Your task to perform on an android device: add a label to a message in the gmail app Image 0: 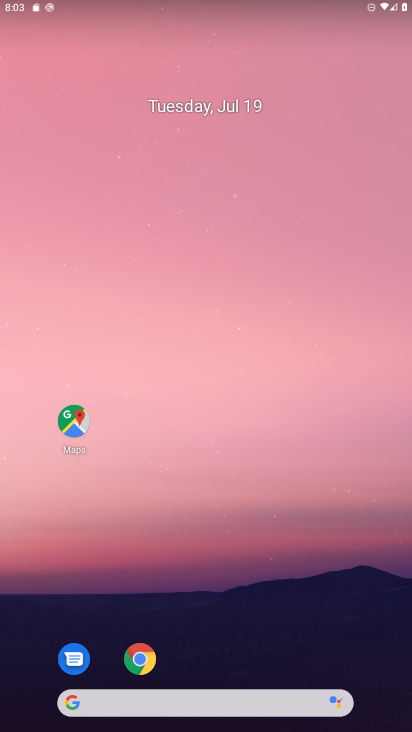
Step 0: drag from (270, 618) to (284, 98)
Your task to perform on an android device: add a label to a message in the gmail app Image 1: 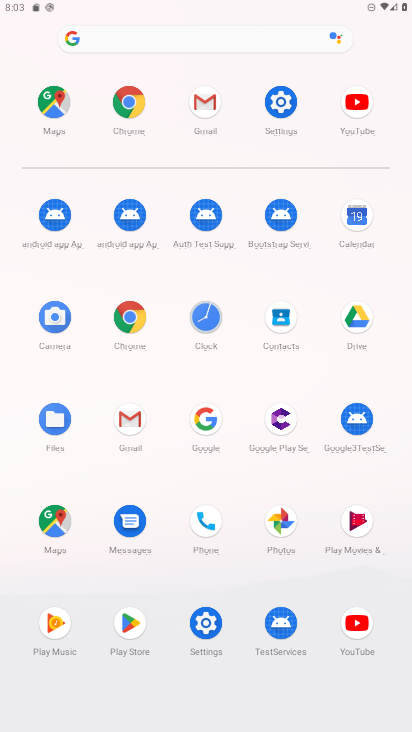
Step 1: click (209, 100)
Your task to perform on an android device: add a label to a message in the gmail app Image 2: 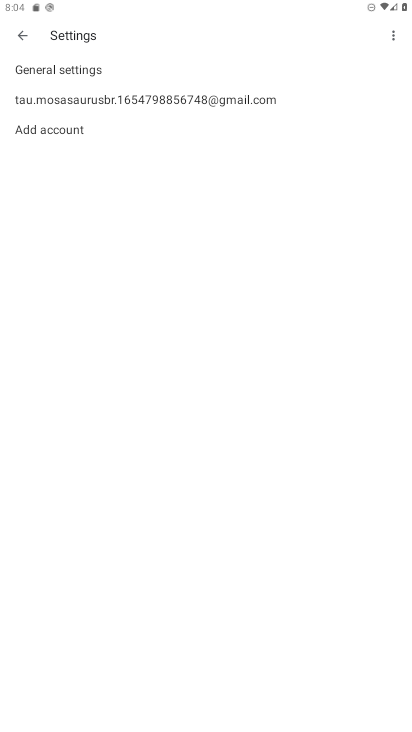
Step 2: click (21, 32)
Your task to perform on an android device: add a label to a message in the gmail app Image 3: 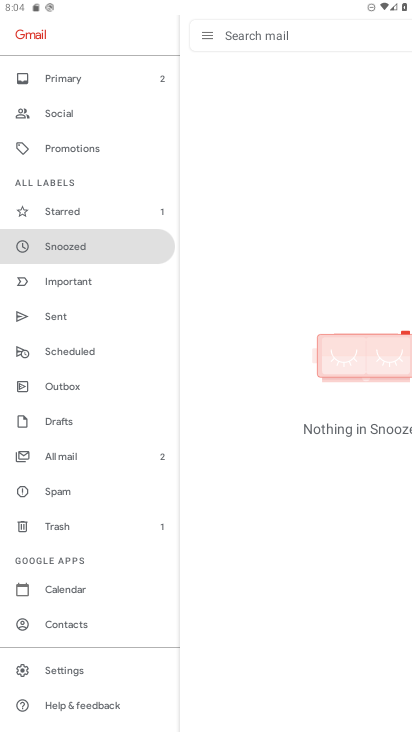
Step 3: click (75, 457)
Your task to perform on an android device: add a label to a message in the gmail app Image 4: 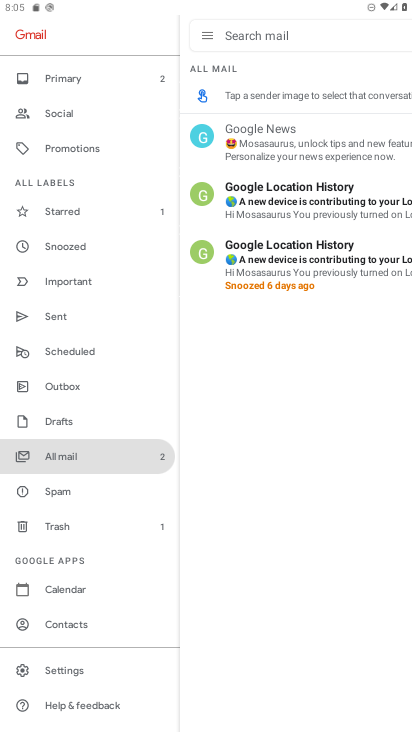
Step 4: click (315, 133)
Your task to perform on an android device: add a label to a message in the gmail app Image 5: 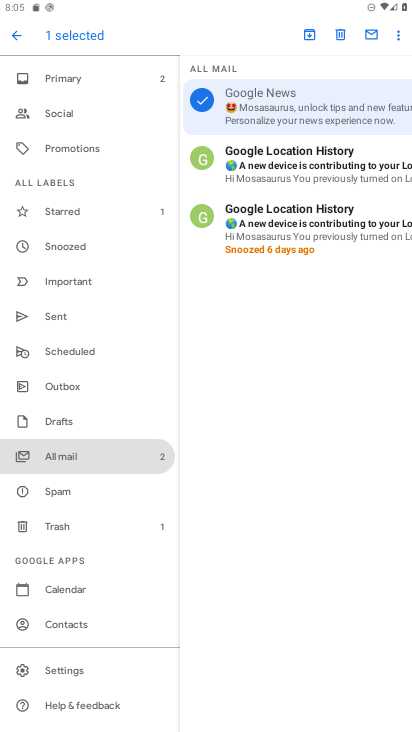
Step 5: click (396, 26)
Your task to perform on an android device: add a label to a message in the gmail app Image 6: 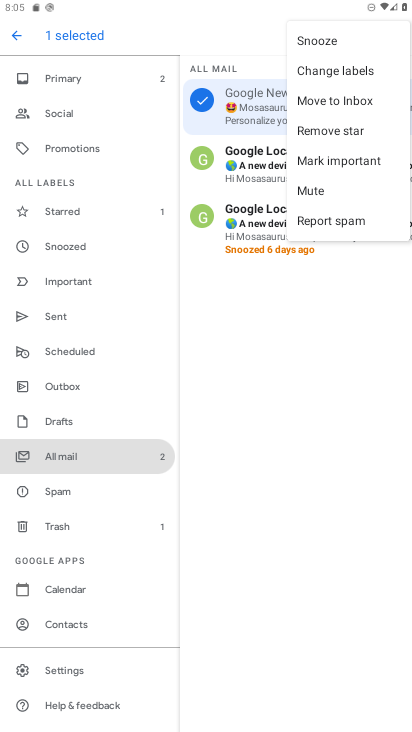
Step 6: click (349, 74)
Your task to perform on an android device: add a label to a message in the gmail app Image 7: 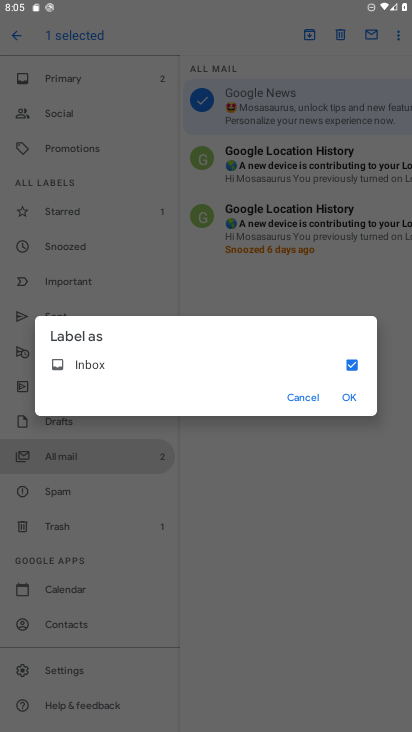
Step 7: click (41, 360)
Your task to perform on an android device: add a label to a message in the gmail app Image 8: 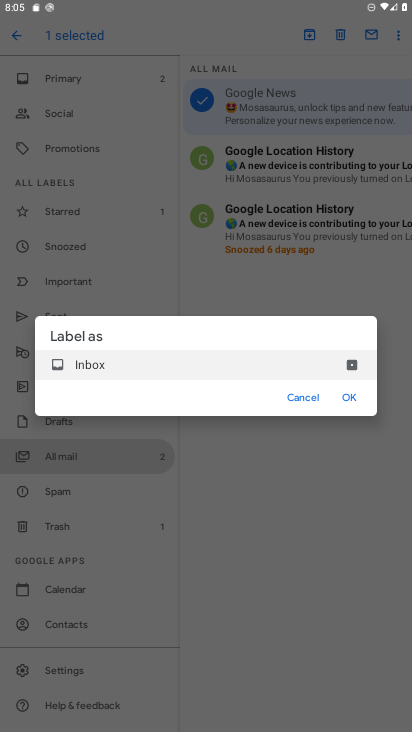
Step 8: click (56, 362)
Your task to perform on an android device: add a label to a message in the gmail app Image 9: 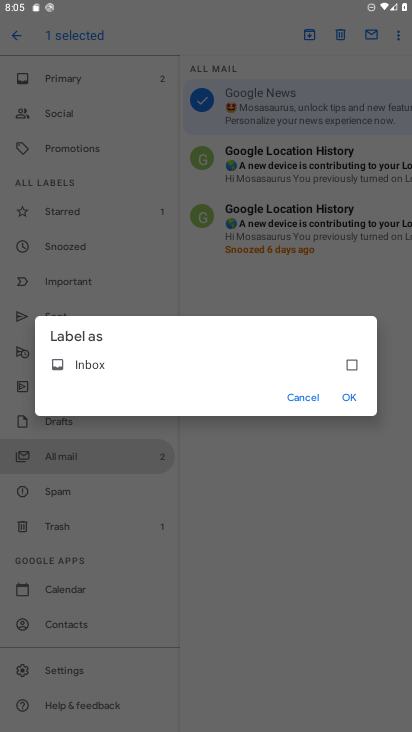
Step 9: click (60, 362)
Your task to perform on an android device: add a label to a message in the gmail app Image 10: 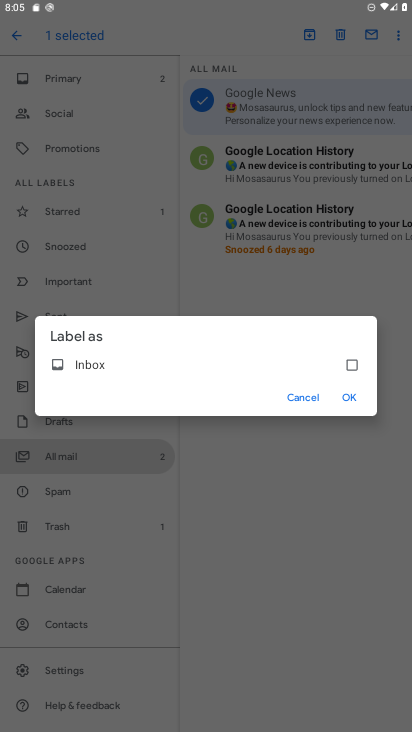
Step 10: click (352, 363)
Your task to perform on an android device: add a label to a message in the gmail app Image 11: 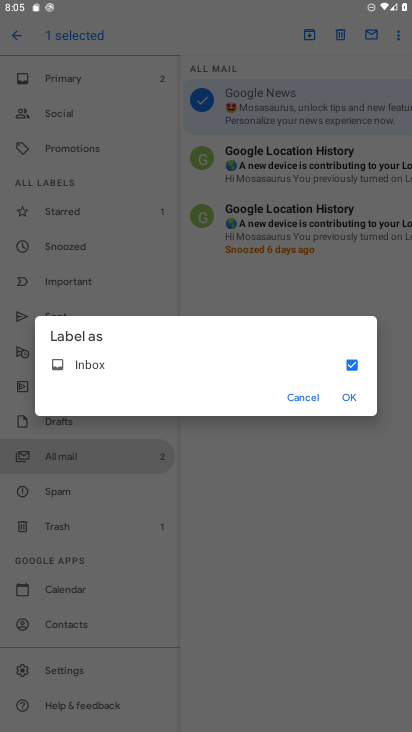
Step 11: click (354, 405)
Your task to perform on an android device: add a label to a message in the gmail app Image 12: 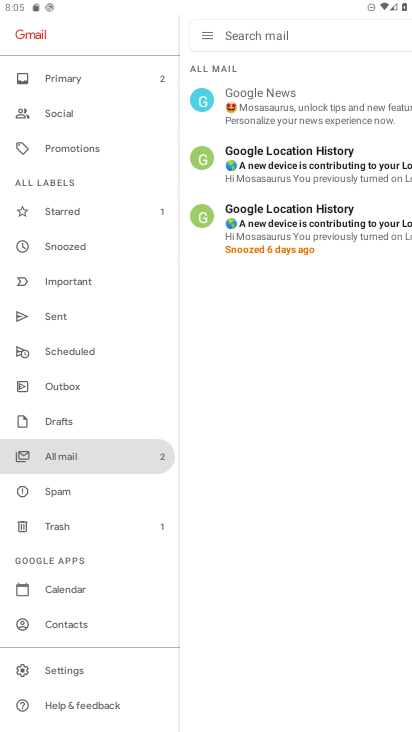
Step 12: task complete